Your task to perform on an android device: read, delete, or share a saved page in the chrome app Image 0: 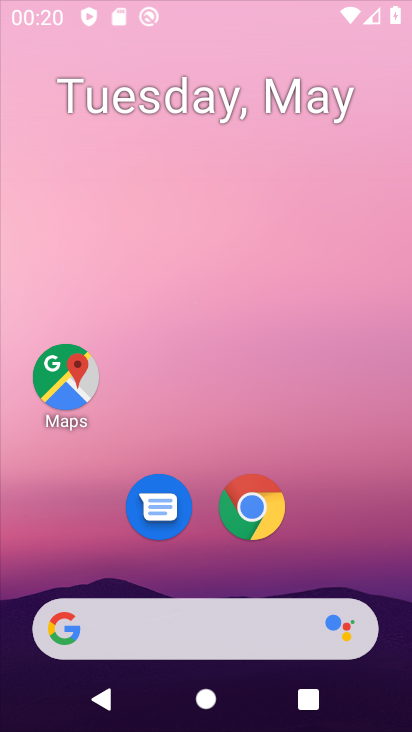
Step 0: click (319, 207)
Your task to perform on an android device: read, delete, or share a saved page in the chrome app Image 1: 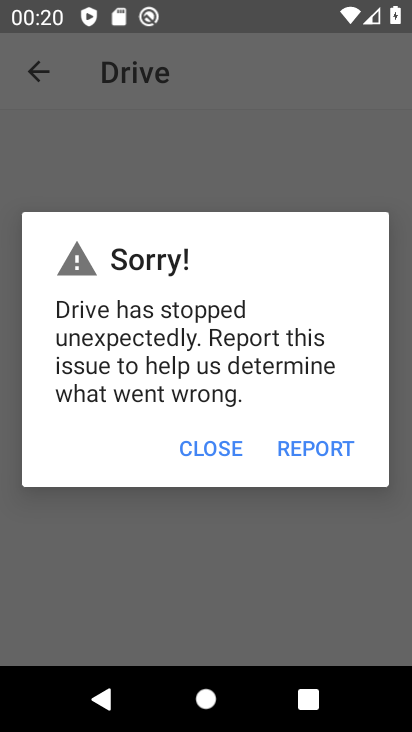
Step 1: click (239, 438)
Your task to perform on an android device: read, delete, or share a saved page in the chrome app Image 2: 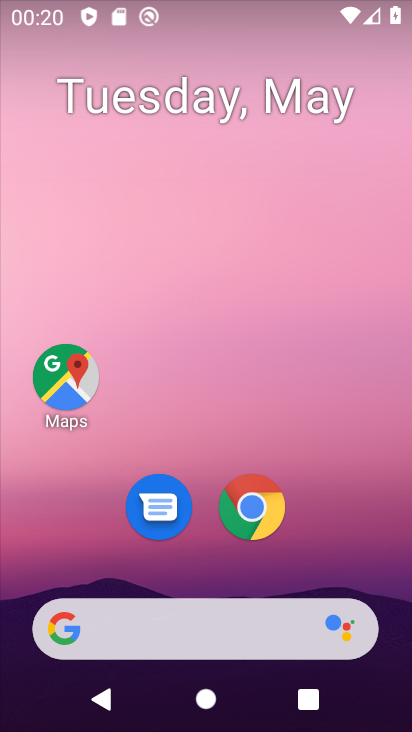
Step 2: click (255, 511)
Your task to perform on an android device: read, delete, or share a saved page in the chrome app Image 3: 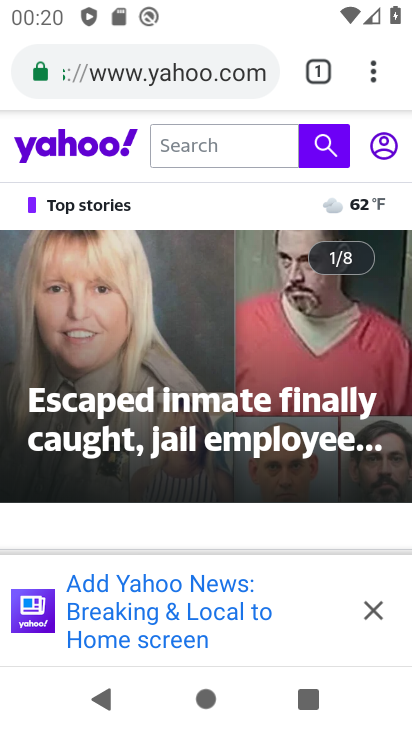
Step 3: click (371, 63)
Your task to perform on an android device: read, delete, or share a saved page in the chrome app Image 4: 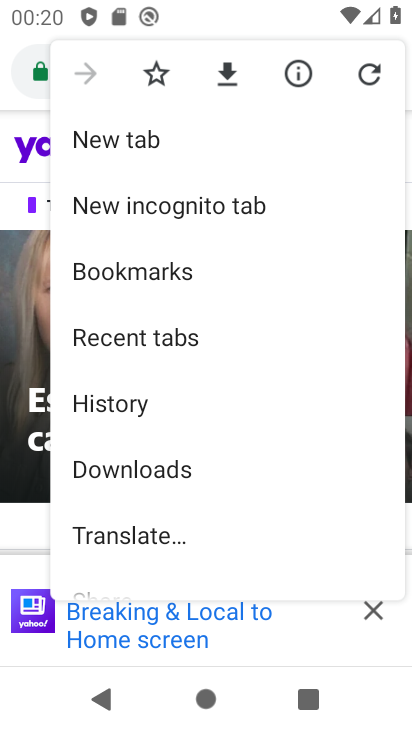
Step 4: click (130, 462)
Your task to perform on an android device: read, delete, or share a saved page in the chrome app Image 5: 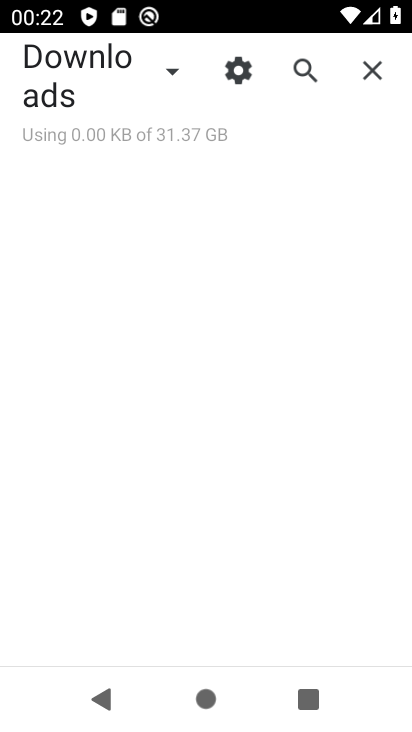
Step 5: drag from (188, 577) to (172, 613)
Your task to perform on an android device: read, delete, or share a saved page in the chrome app Image 6: 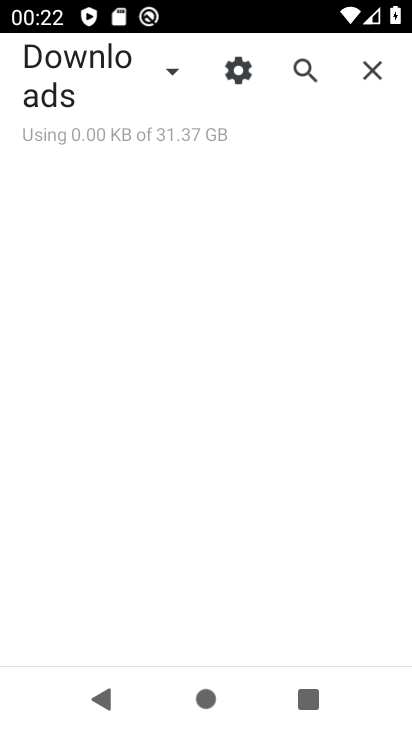
Step 6: click (170, 67)
Your task to perform on an android device: read, delete, or share a saved page in the chrome app Image 7: 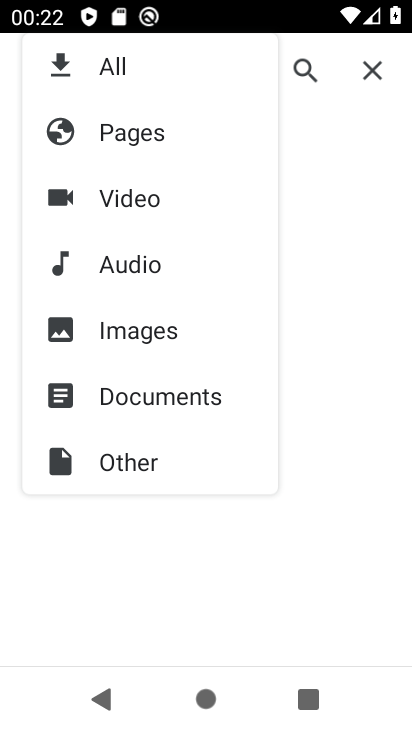
Step 7: click (118, 132)
Your task to perform on an android device: read, delete, or share a saved page in the chrome app Image 8: 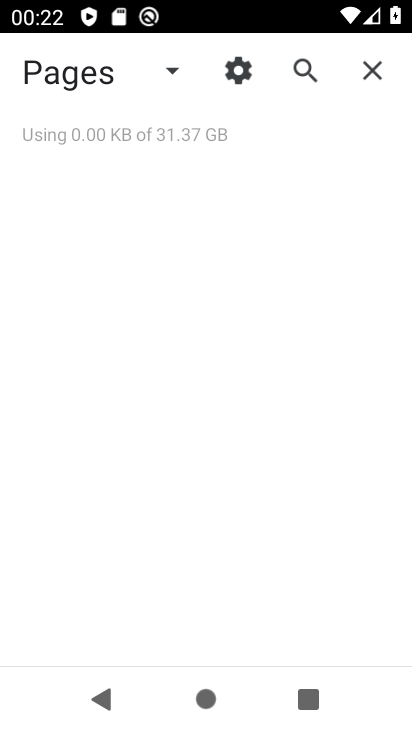
Step 8: task complete